Your task to perform on an android device: visit the assistant section in the google photos Image 0: 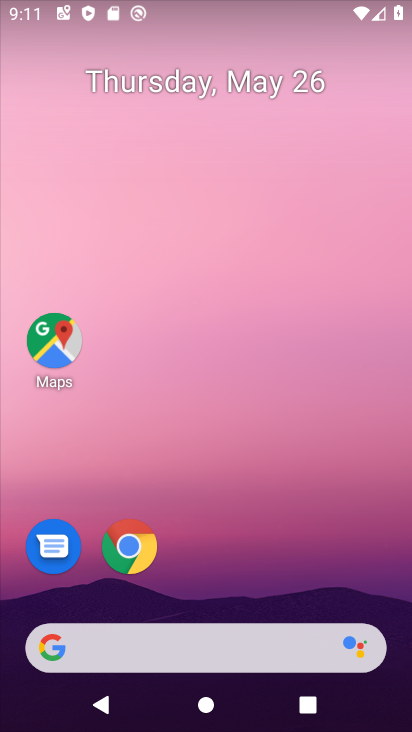
Step 0: drag from (221, 8) to (229, 377)
Your task to perform on an android device: visit the assistant section in the google photos Image 1: 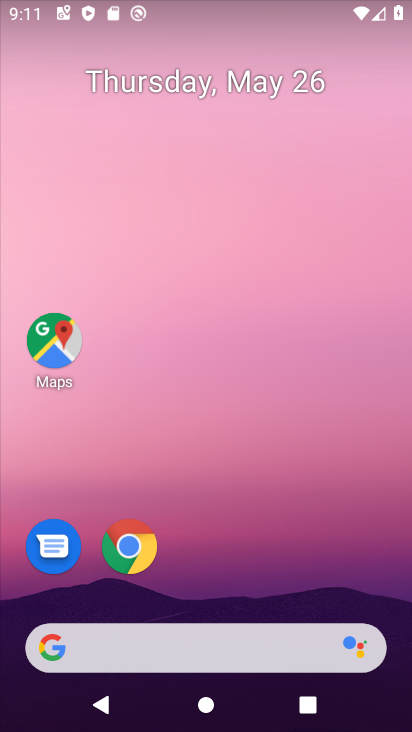
Step 1: drag from (227, 595) to (220, 101)
Your task to perform on an android device: visit the assistant section in the google photos Image 2: 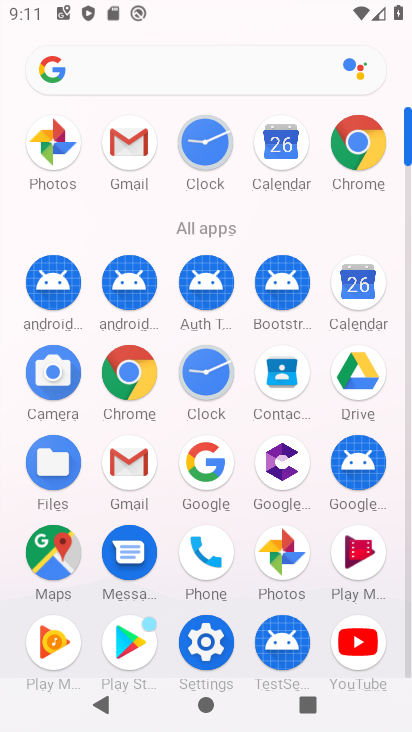
Step 2: click (293, 561)
Your task to perform on an android device: visit the assistant section in the google photos Image 3: 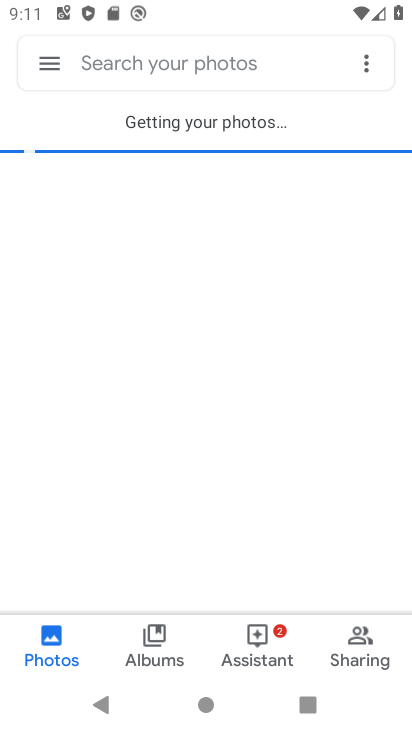
Step 3: click (256, 628)
Your task to perform on an android device: visit the assistant section in the google photos Image 4: 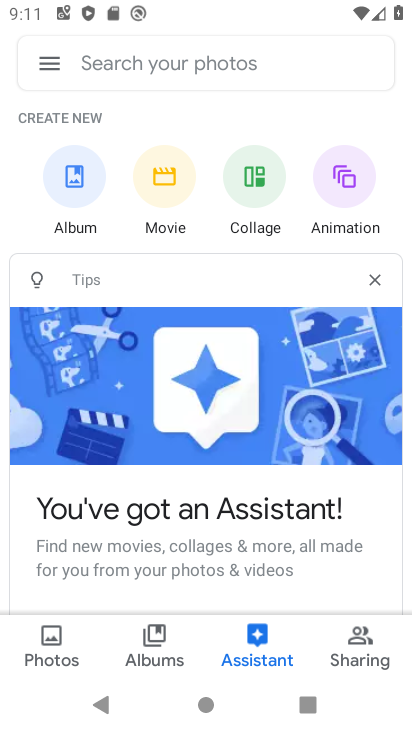
Step 4: task complete